Your task to perform on an android device: Toggle the flashlight Image 0: 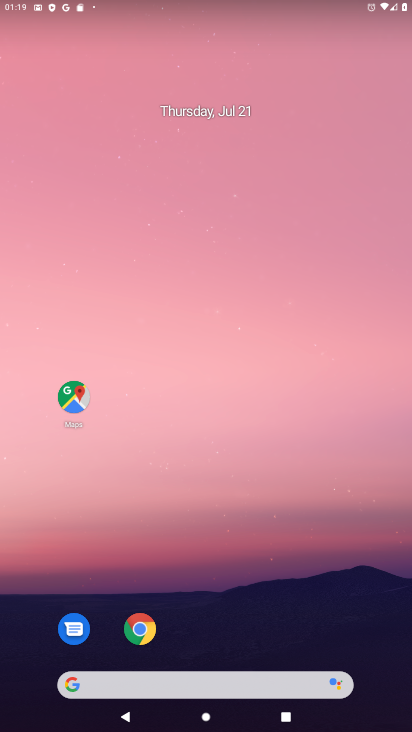
Step 0: drag from (225, 632) to (232, 99)
Your task to perform on an android device: Toggle the flashlight Image 1: 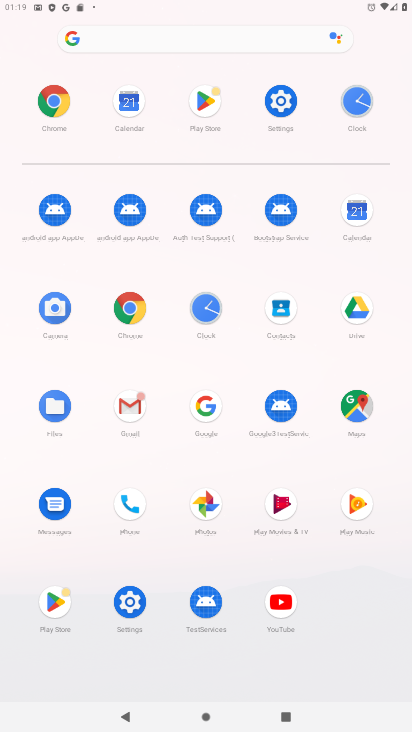
Step 1: click (284, 96)
Your task to perform on an android device: Toggle the flashlight Image 2: 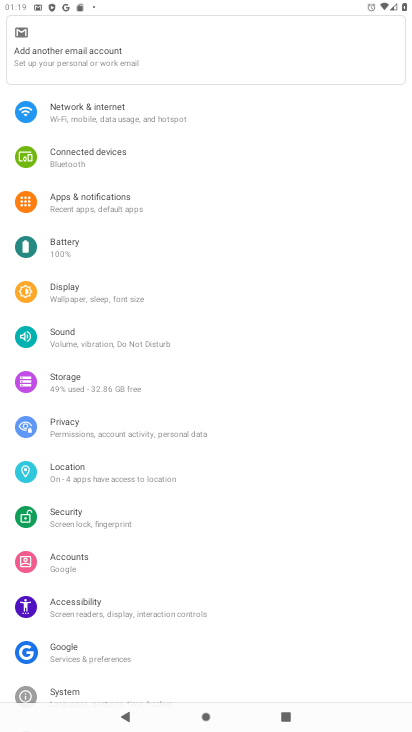
Step 2: drag from (154, 85) to (198, 486)
Your task to perform on an android device: Toggle the flashlight Image 3: 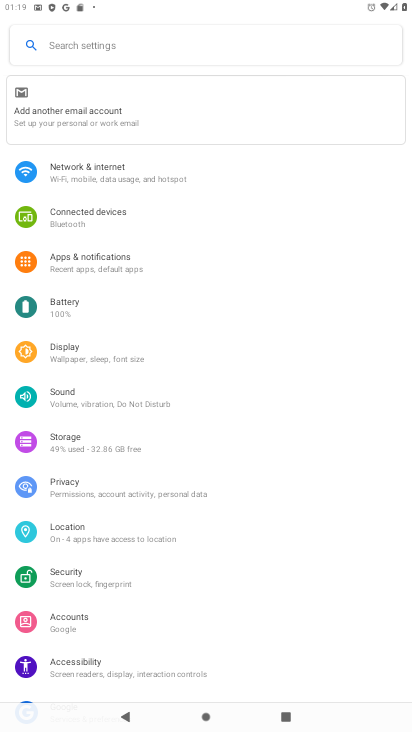
Step 3: click (140, 45)
Your task to perform on an android device: Toggle the flashlight Image 4: 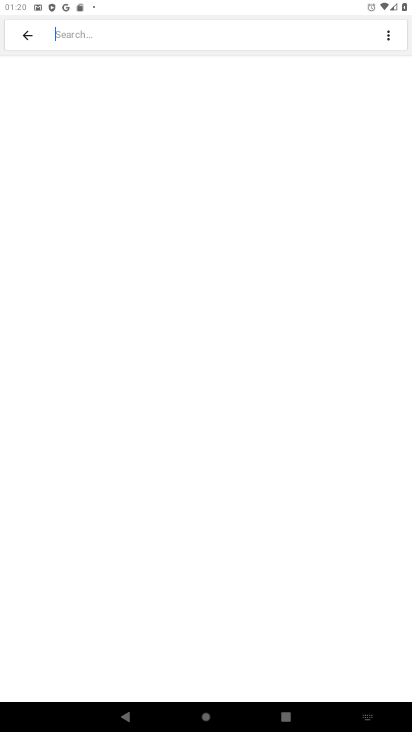
Step 4: type "flashlight"
Your task to perform on an android device: Toggle the flashlight Image 5: 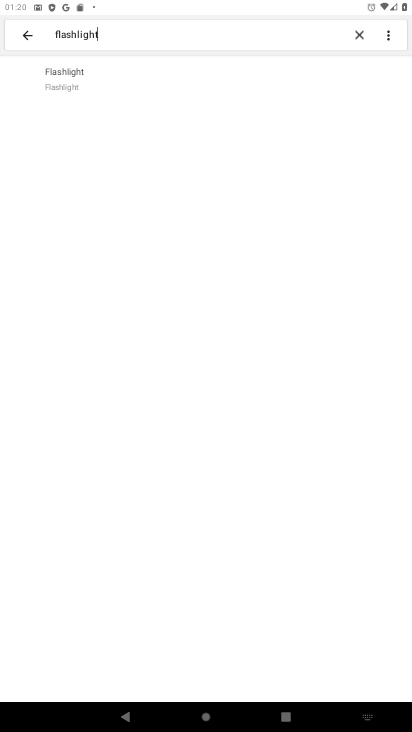
Step 5: task complete